Your task to perform on an android device: turn off javascript in the chrome app Image 0: 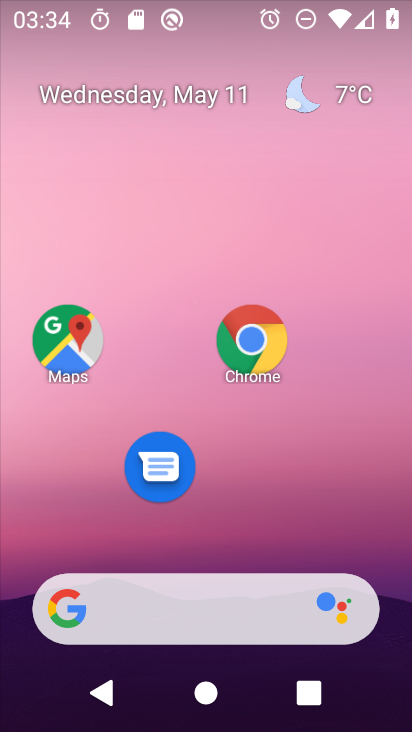
Step 0: drag from (179, 610) to (226, 143)
Your task to perform on an android device: turn off javascript in the chrome app Image 1: 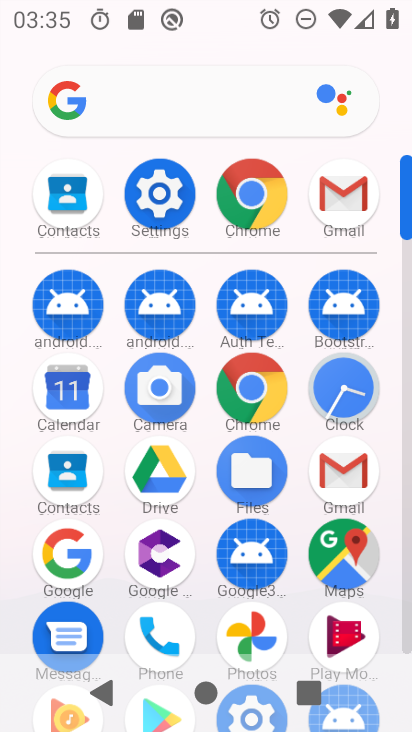
Step 1: click (245, 210)
Your task to perform on an android device: turn off javascript in the chrome app Image 2: 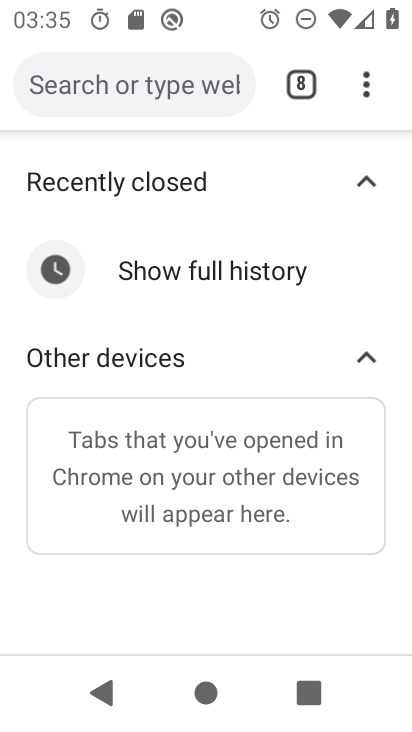
Step 2: drag from (367, 85) to (196, 517)
Your task to perform on an android device: turn off javascript in the chrome app Image 3: 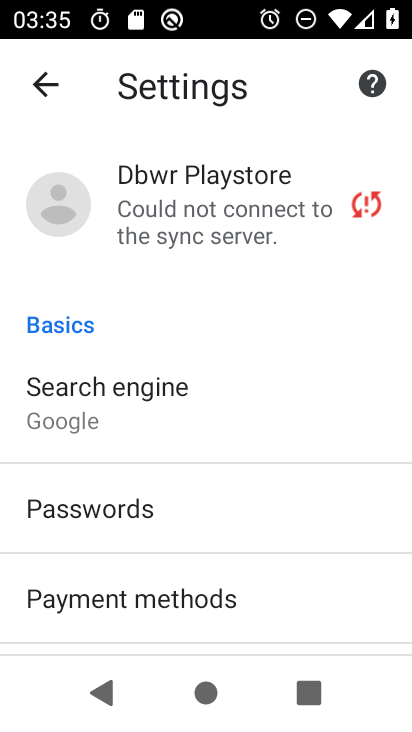
Step 3: drag from (147, 576) to (249, 74)
Your task to perform on an android device: turn off javascript in the chrome app Image 4: 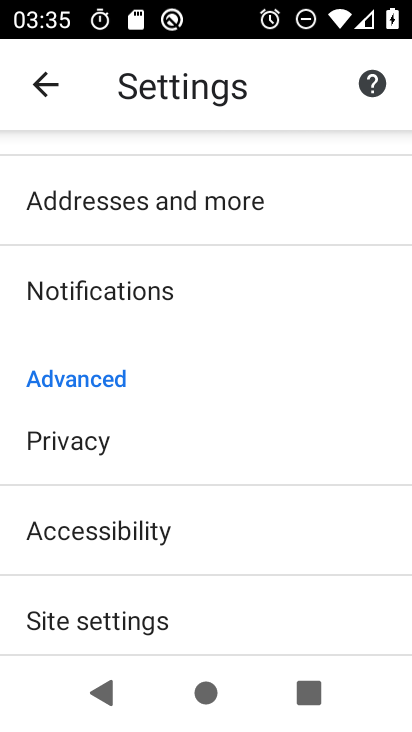
Step 4: click (163, 615)
Your task to perform on an android device: turn off javascript in the chrome app Image 5: 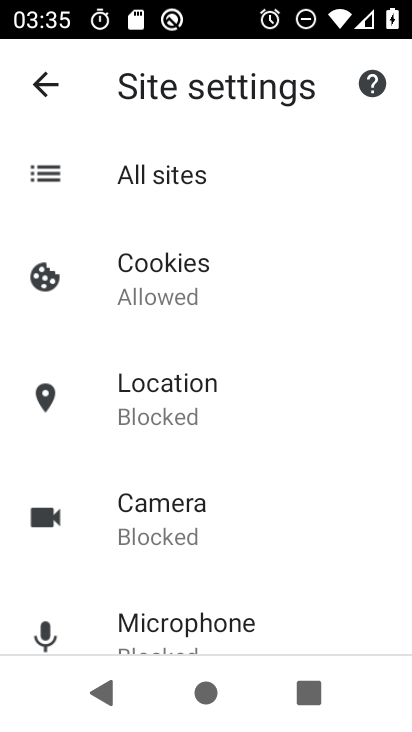
Step 5: drag from (190, 592) to (355, 90)
Your task to perform on an android device: turn off javascript in the chrome app Image 6: 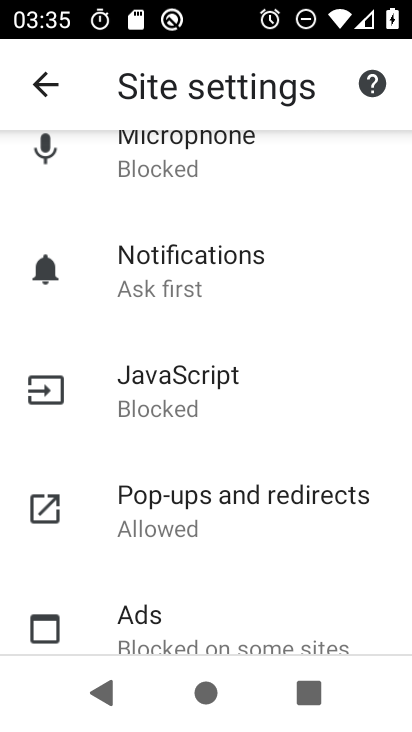
Step 6: click (208, 378)
Your task to perform on an android device: turn off javascript in the chrome app Image 7: 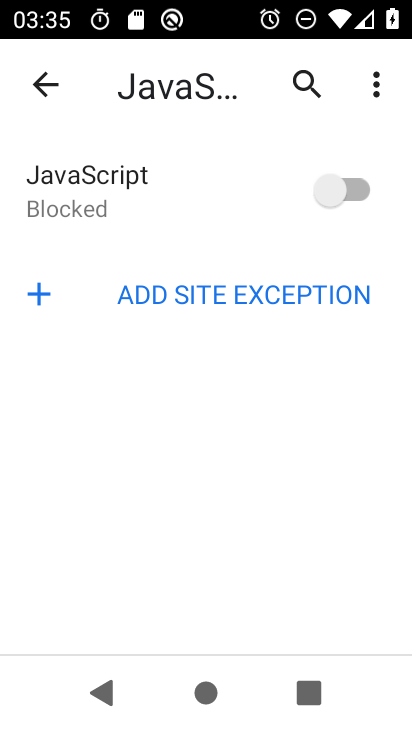
Step 7: task complete